Your task to perform on an android device: delete a single message in the gmail app Image 0: 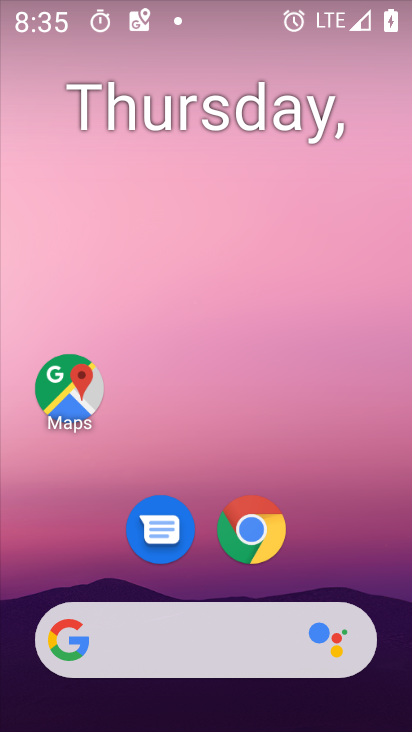
Step 0: drag from (366, 518) to (362, 199)
Your task to perform on an android device: delete a single message in the gmail app Image 1: 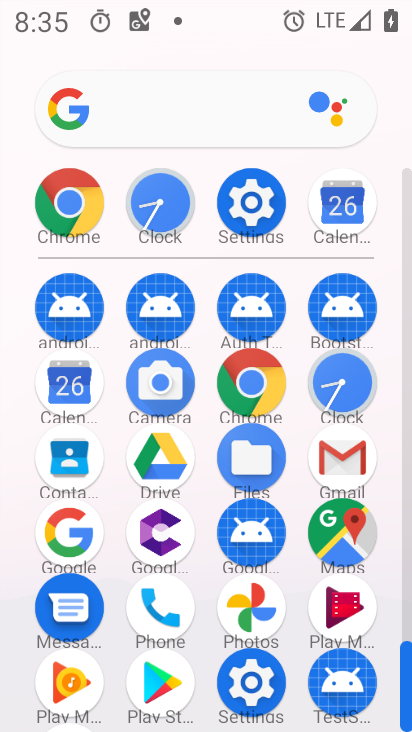
Step 1: click (330, 463)
Your task to perform on an android device: delete a single message in the gmail app Image 2: 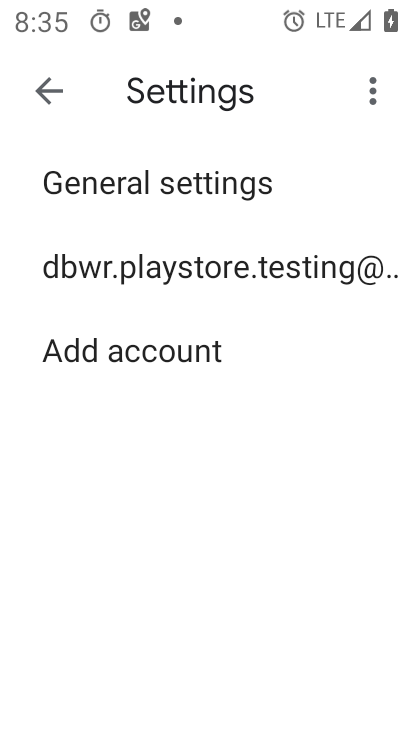
Step 2: click (58, 102)
Your task to perform on an android device: delete a single message in the gmail app Image 3: 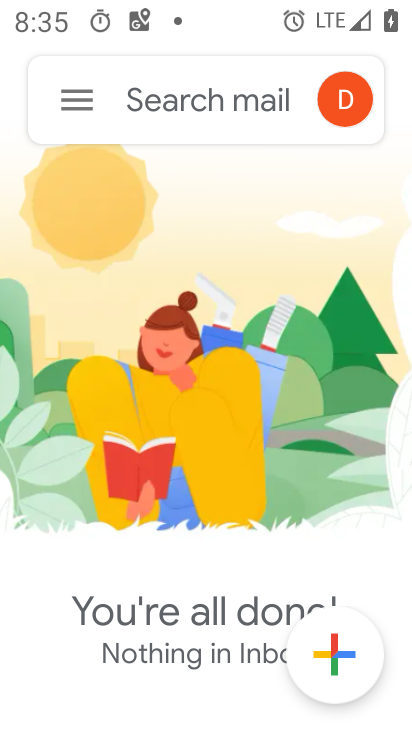
Step 3: task complete